Your task to perform on an android device: turn pop-ups off in chrome Image 0: 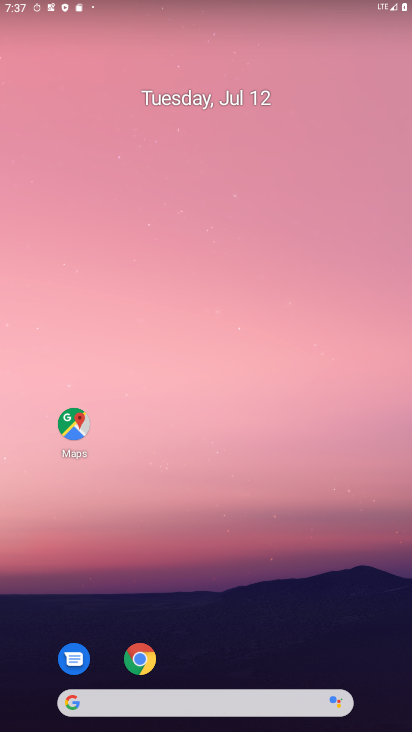
Step 0: click (150, 22)
Your task to perform on an android device: turn pop-ups off in chrome Image 1: 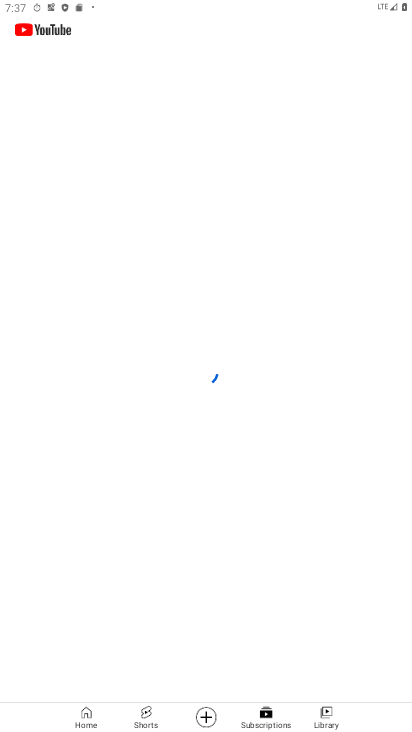
Step 1: press home button
Your task to perform on an android device: turn pop-ups off in chrome Image 2: 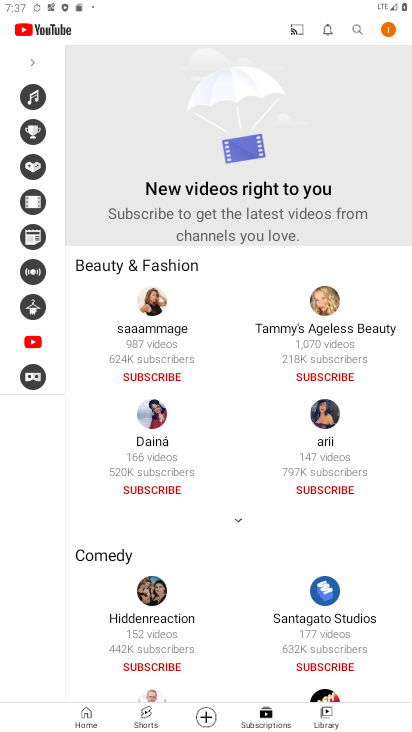
Step 2: drag from (369, 693) to (247, 35)
Your task to perform on an android device: turn pop-ups off in chrome Image 3: 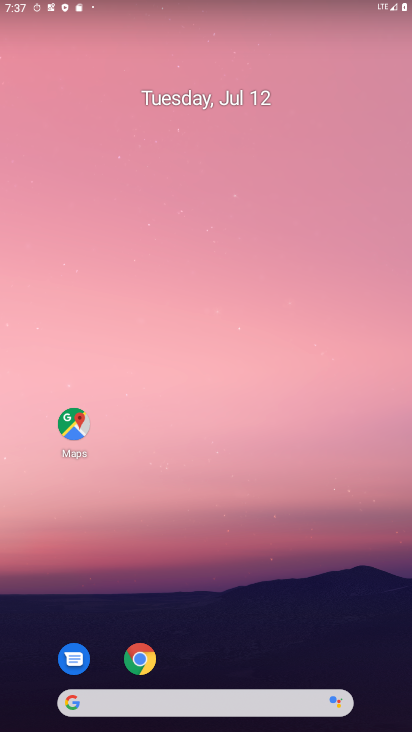
Step 3: drag from (354, 675) to (250, 49)
Your task to perform on an android device: turn pop-ups off in chrome Image 4: 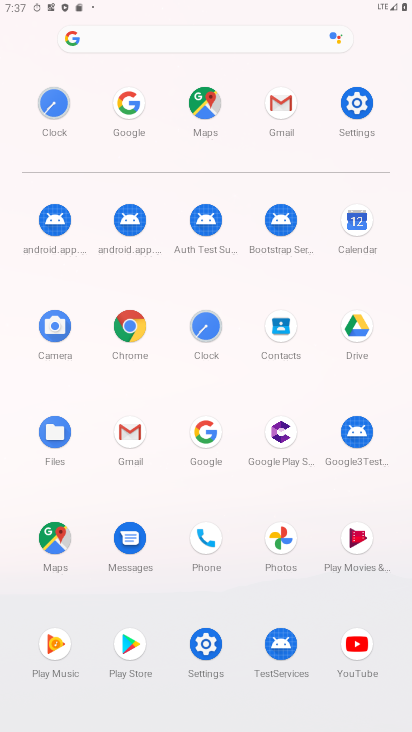
Step 4: click (139, 338)
Your task to perform on an android device: turn pop-ups off in chrome Image 5: 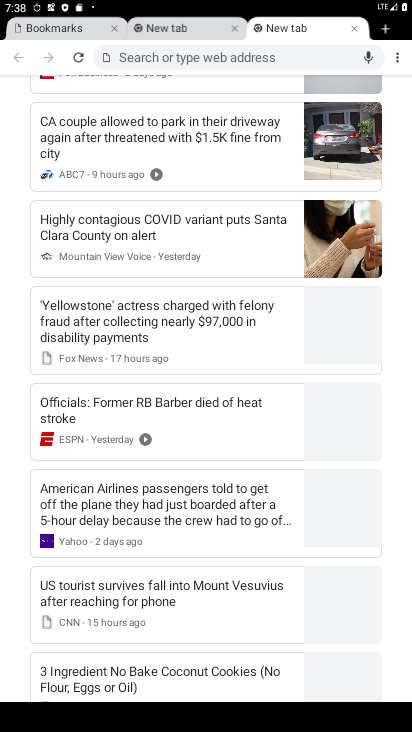
Step 5: click (398, 54)
Your task to perform on an android device: turn pop-ups off in chrome Image 6: 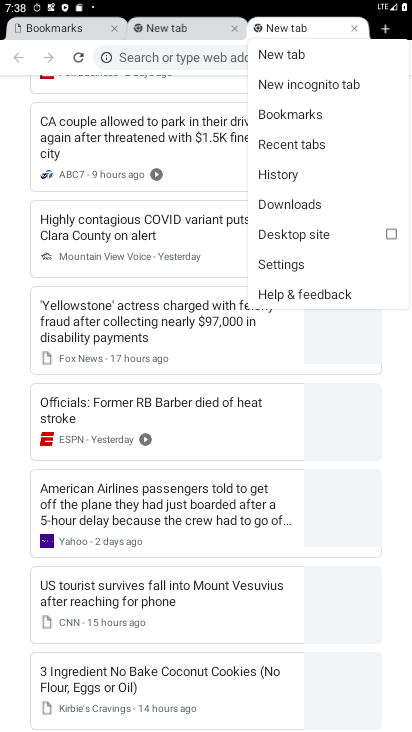
Step 6: click (283, 264)
Your task to perform on an android device: turn pop-ups off in chrome Image 7: 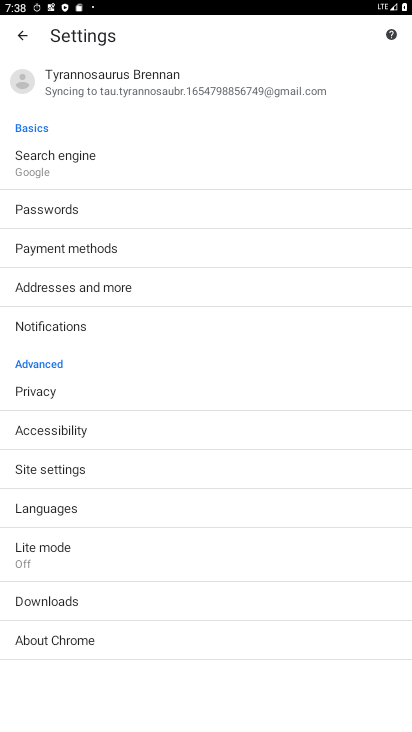
Step 7: click (65, 476)
Your task to perform on an android device: turn pop-ups off in chrome Image 8: 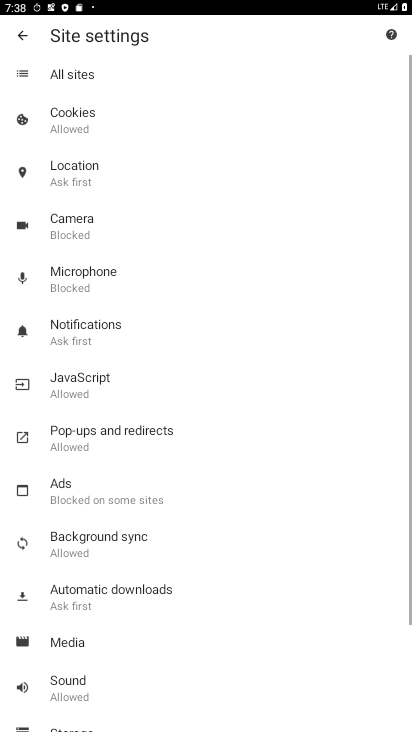
Step 8: click (90, 448)
Your task to perform on an android device: turn pop-ups off in chrome Image 9: 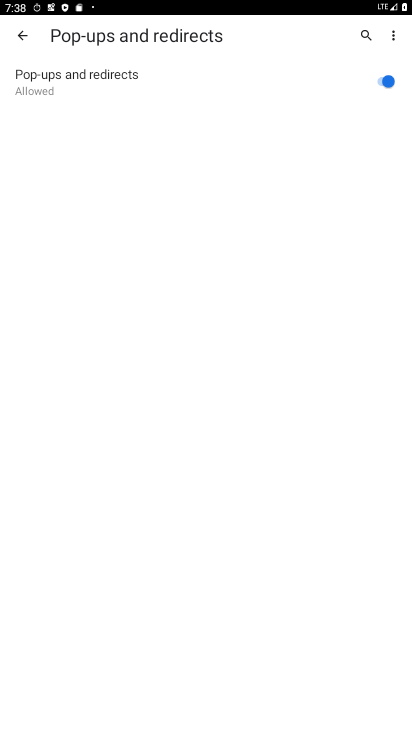
Step 9: click (387, 78)
Your task to perform on an android device: turn pop-ups off in chrome Image 10: 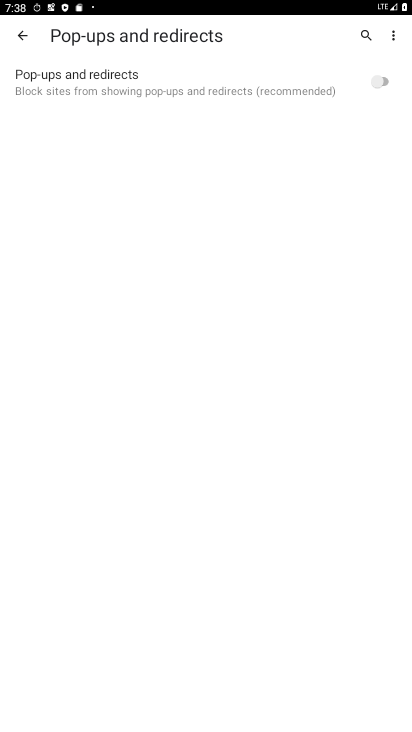
Step 10: task complete